Your task to perform on an android device: Open Android settings Image 0: 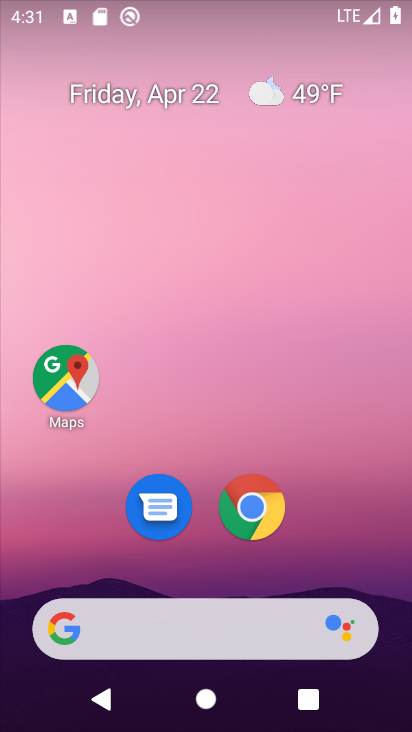
Step 0: drag from (357, 556) to (331, 92)
Your task to perform on an android device: Open Android settings Image 1: 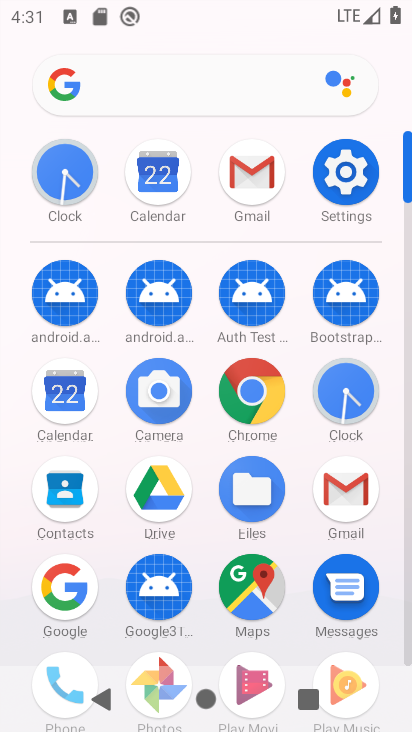
Step 1: click (345, 177)
Your task to perform on an android device: Open Android settings Image 2: 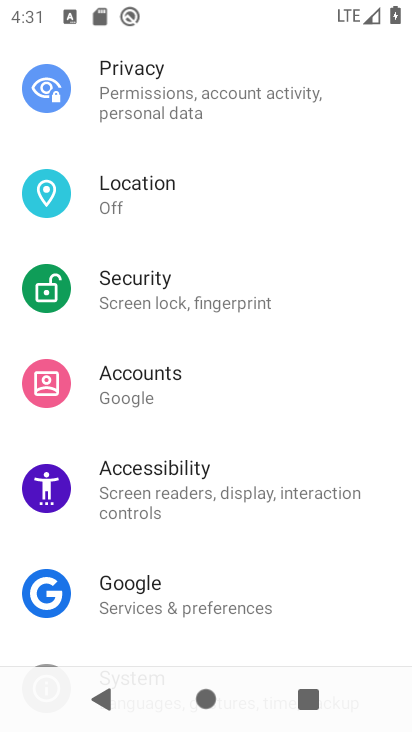
Step 2: drag from (259, 540) to (285, 208)
Your task to perform on an android device: Open Android settings Image 3: 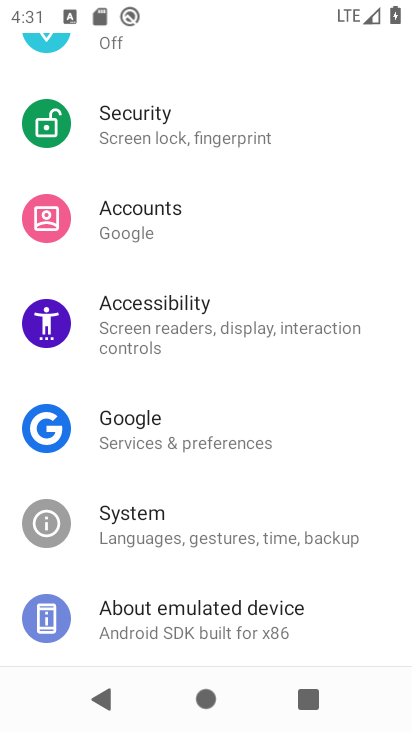
Step 3: click (166, 615)
Your task to perform on an android device: Open Android settings Image 4: 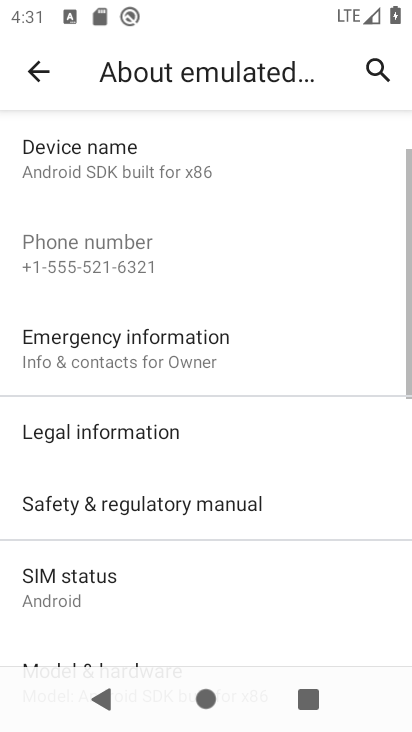
Step 4: task complete